Your task to perform on an android device: turn off location Image 0: 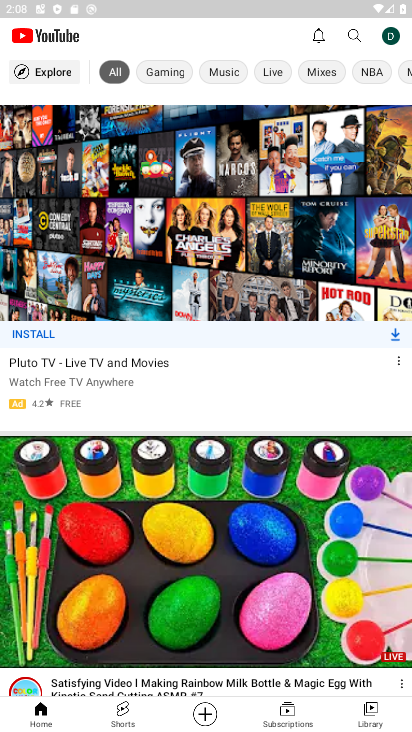
Step 0: press home button
Your task to perform on an android device: turn off location Image 1: 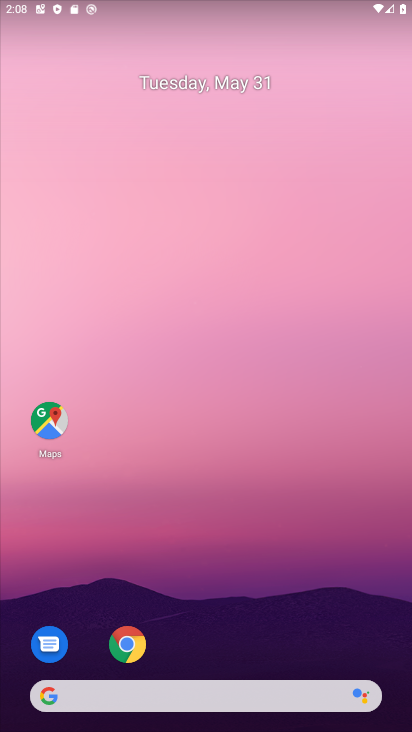
Step 1: drag from (400, 710) to (314, 148)
Your task to perform on an android device: turn off location Image 2: 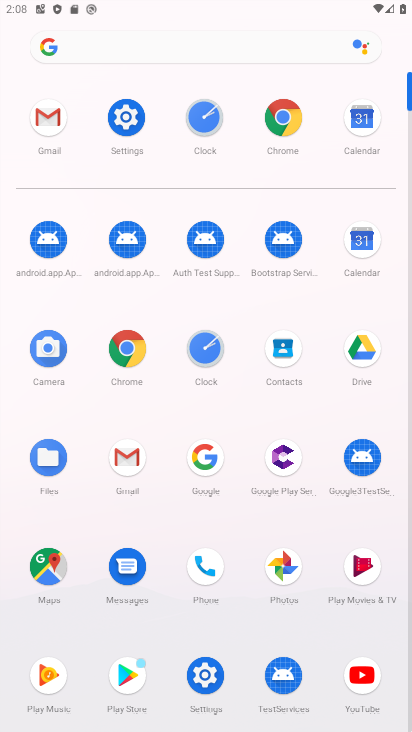
Step 2: click (196, 660)
Your task to perform on an android device: turn off location Image 3: 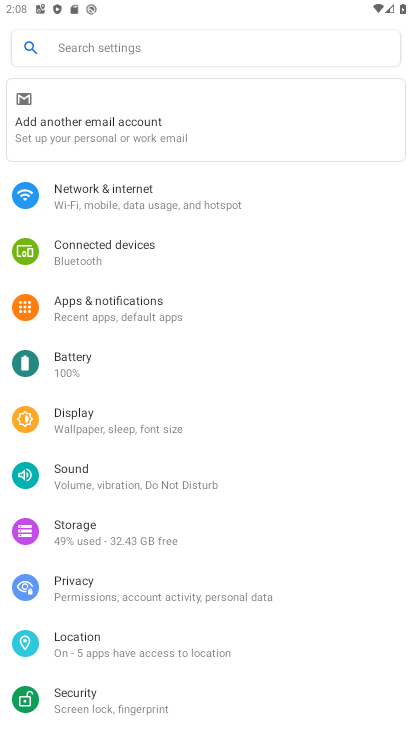
Step 3: click (93, 641)
Your task to perform on an android device: turn off location Image 4: 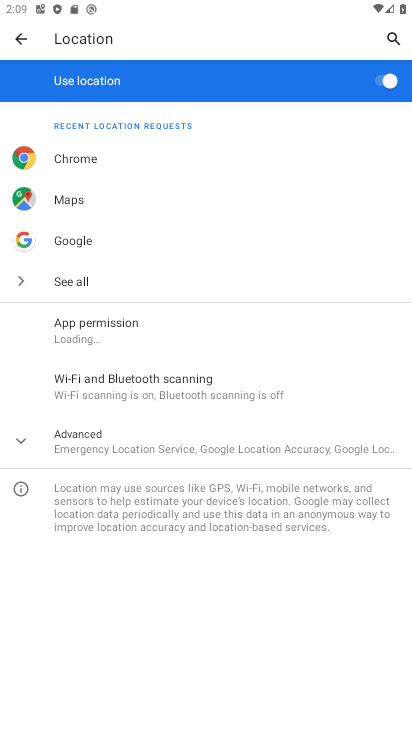
Step 4: click (379, 79)
Your task to perform on an android device: turn off location Image 5: 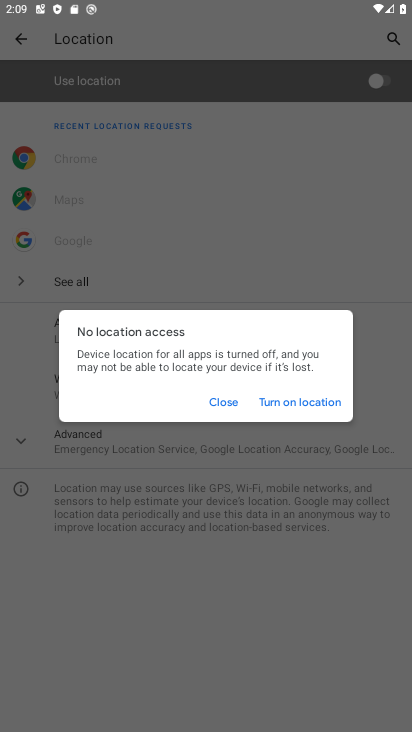
Step 5: task complete